Your task to perform on an android device: Go to privacy settings Image 0: 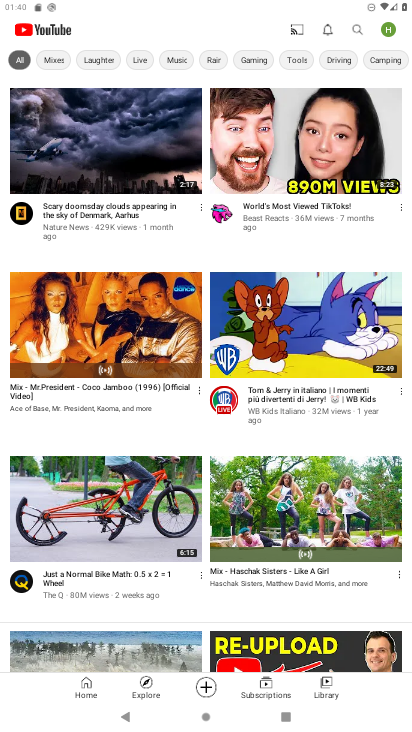
Step 0: press home button
Your task to perform on an android device: Go to privacy settings Image 1: 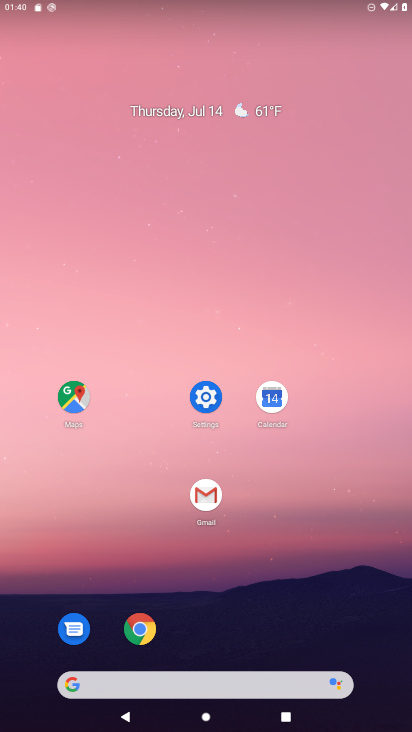
Step 1: click (204, 397)
Your task to perform on an android device: Go to privacy settings Image 2: 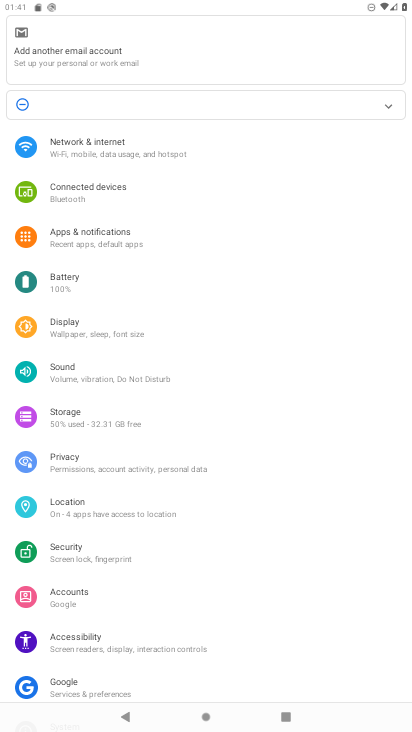
Step 2: click (65, 468)
Your task to perform on an android device: Go to privacy settings Image 3: 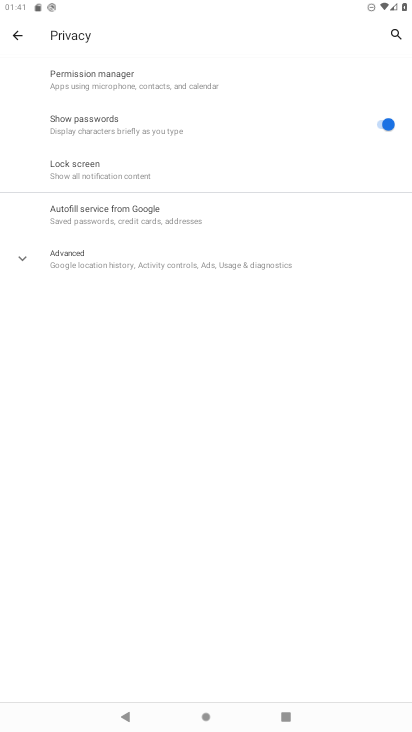
Step 3: task complete